Your task to perform on an android device: open chrome and create a bookmark for the current page Image 0: 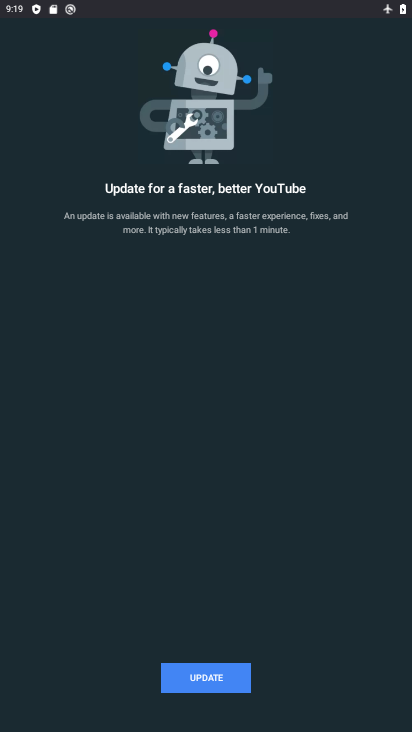
Step 0: press home button
Your task to perform on an android device: open chrome and create a bookmark for the current page Image 1: 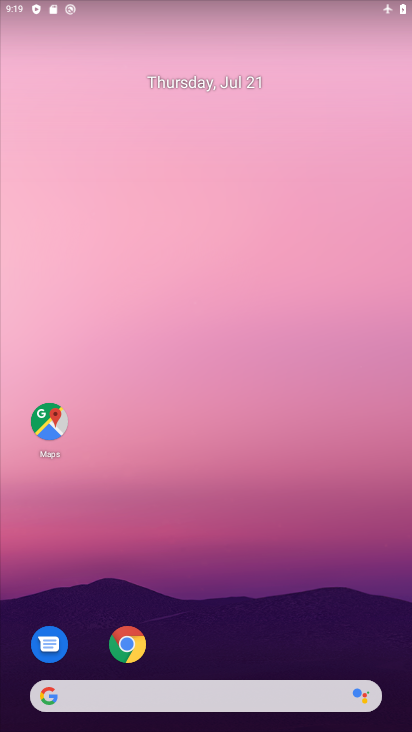
Step 1: click (126, 644)
Your task to perform on an android device: open chrome and create a bookmark for the current page Image 2: 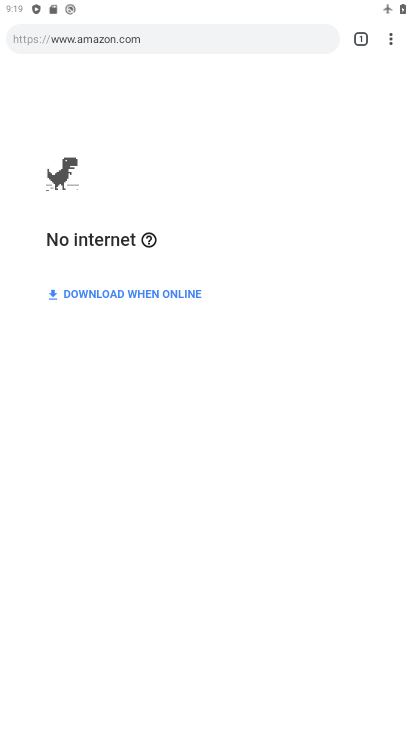
Step 2: click (387, 43)
Your task to perform on an android device: open chrome and create a bookmark for the current page Image 3: 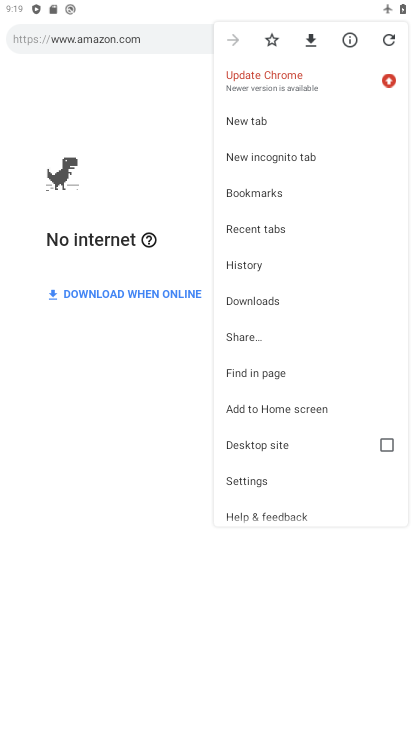
Step 3: click (274, 38)
Your task to perform on an android device: open chrome and create a bookmark for the current page Image 4: 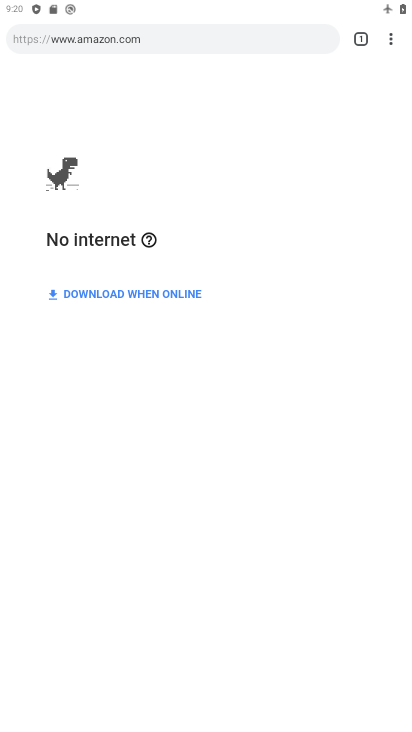
Step 4: task complete